Your task to perform on an android device: Go to Google Image 0: 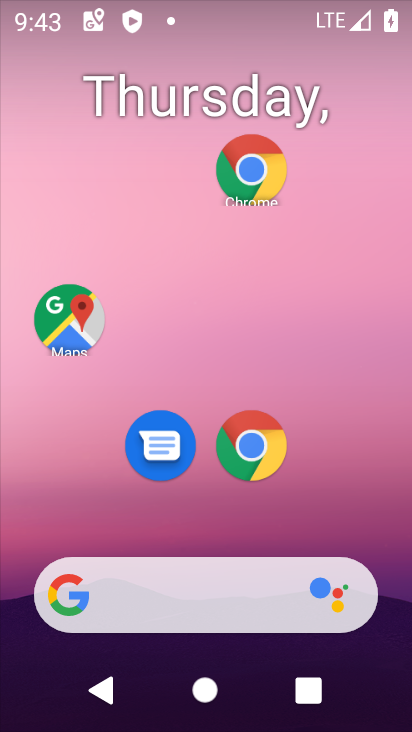
Step 0: drag from (158, 547) to (388, 408)
Your task to perform on an android device: Go to Google Image 1: 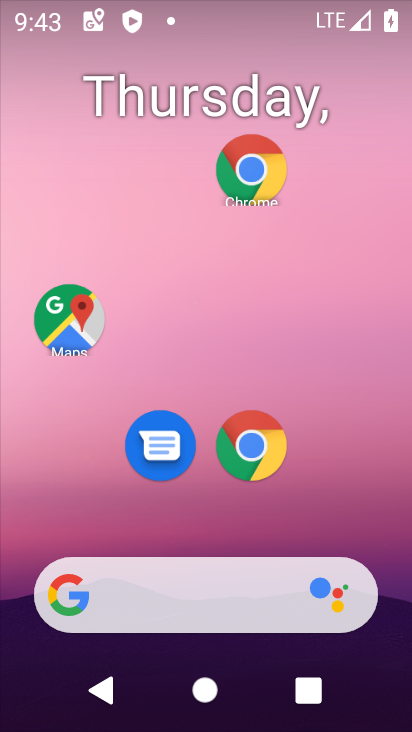
Step 1: click (74, 529)
Your task to perform on an android device: Go to Google Image 2: 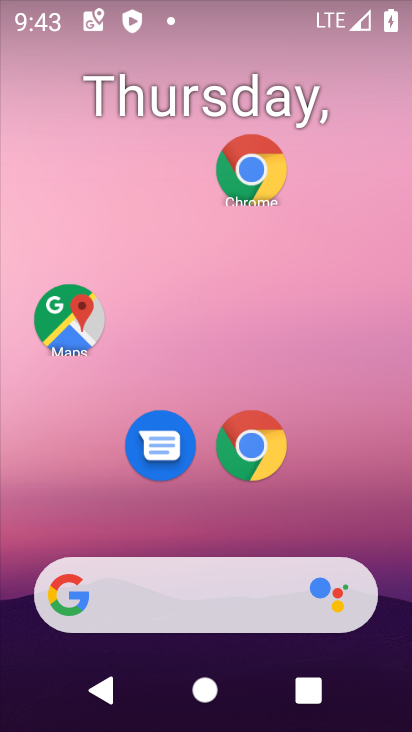
Step 2: drag from (74, 529) to (76, 63)
Your task to perform on an android device: Go to Google Image 3: 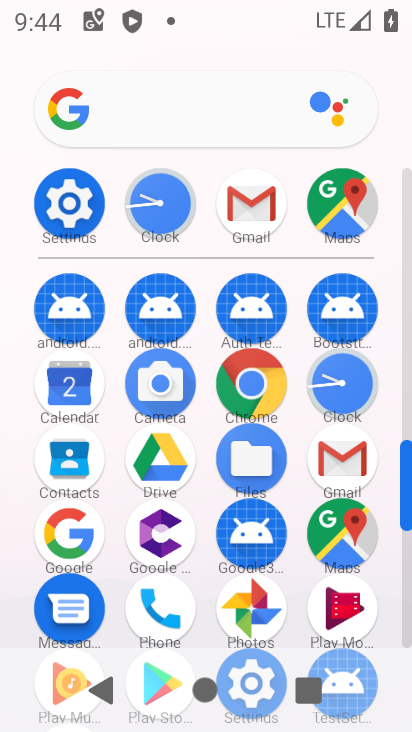
Step 3: click (77, 533)
Your task to perform on an android device: Go to Google Image 4: 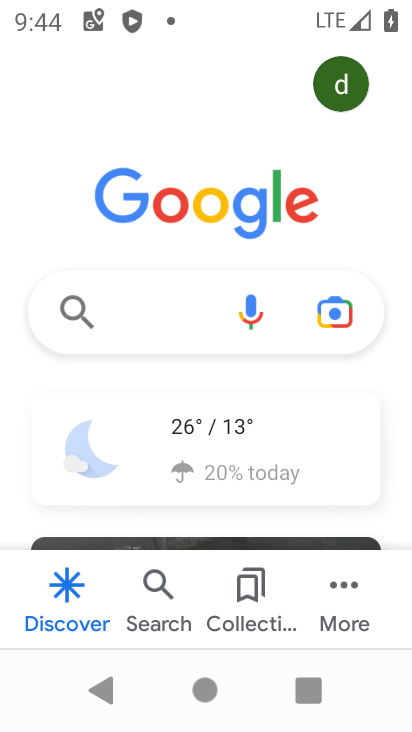
Step 4: task complete